Your task to perform on an android device: turn off notifications settings in the gmail app Image 0: 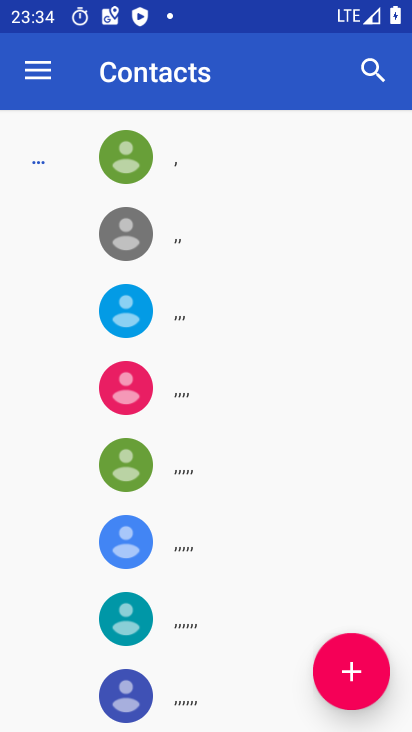
Step 0: press home button
Your task to perform on an android device: turn off notifications settings in the gmail app Image 1: 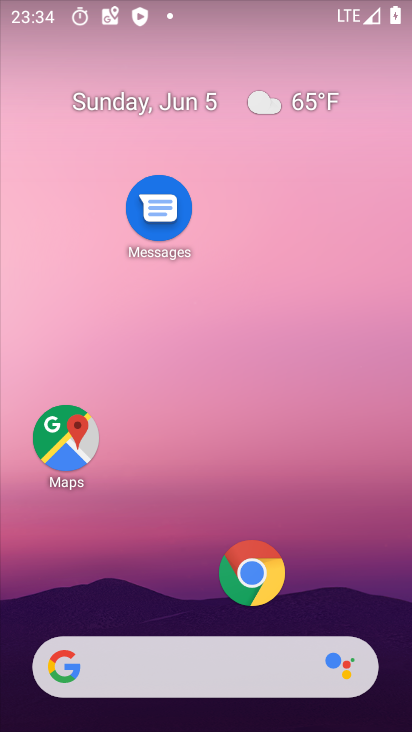
Step 1: drag from (167, 540) to (115, 63)
Your task to perform on an android device: turn off notifications settings in the gmail app Image 2: 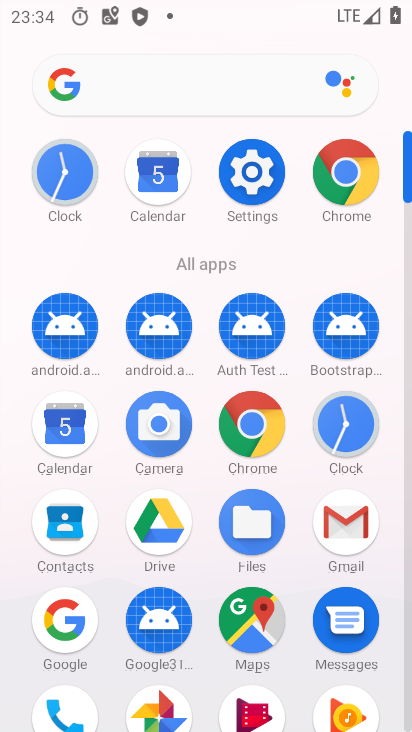
Step 2: click (356, 523)
Your task to perform on an android device: turn off notifications settings in the gmail app Image 3: 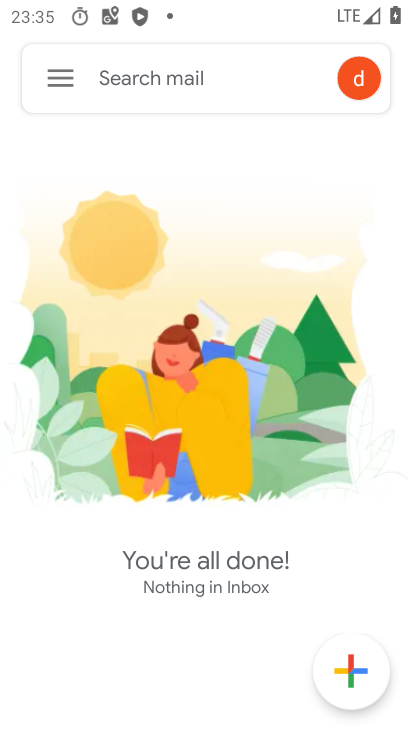
Step 3: click (57, 77)
Your task to perform on an android device: turn off notifications settings in the gmail app Image 4: 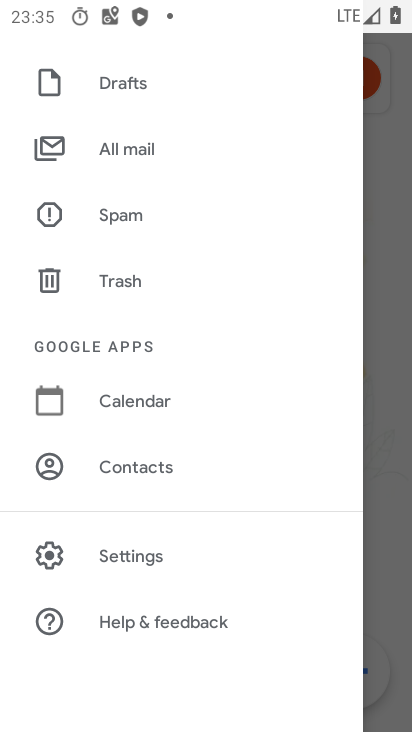
Step 4: click (143, 559)
Your task to perform on an android device: turn off notifications settings in the gmail app Image 5: 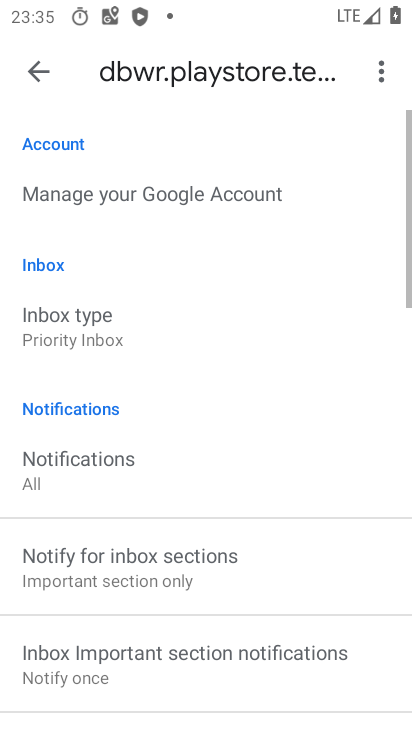
Step 5: drag from (148, 610) to (156, 87)
Your task to perform on an android device: turn off notifications settings in the gmail app Image 6: 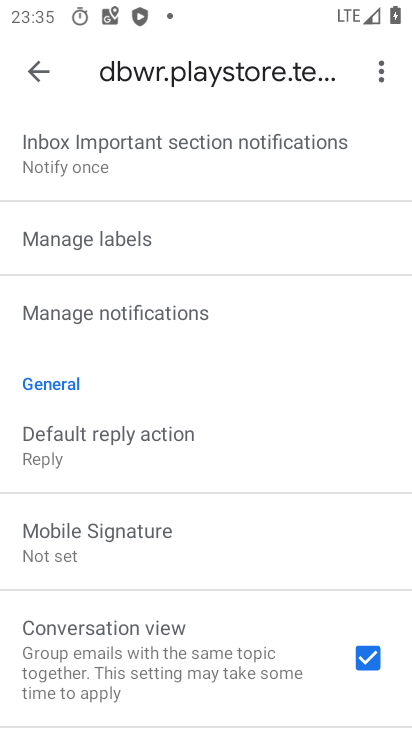
Step 6: click (147, 312)
Your task to perform on an android device: turn off notifications settings in the gmail app Image 7: 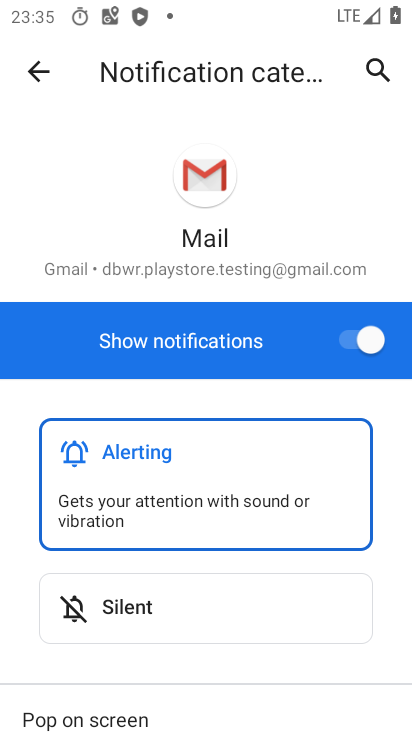
Step 7: click (352, 343)
Your task to perform on an android device: turn off notifications settings in the gmail app Image 8: 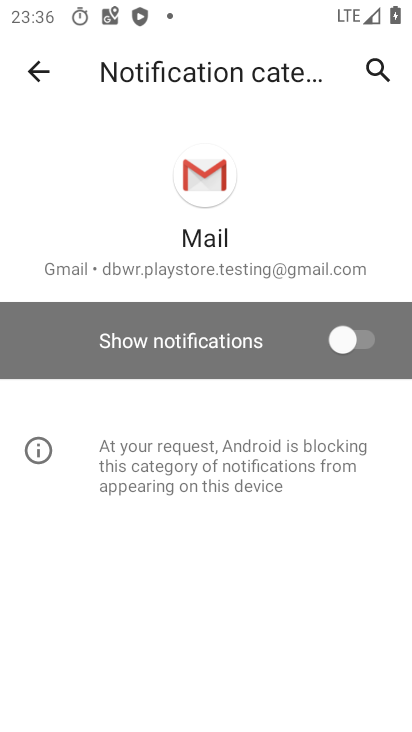
Step 8: task complete